Your task to perform on an android device: Do I have any events today? Image 0: 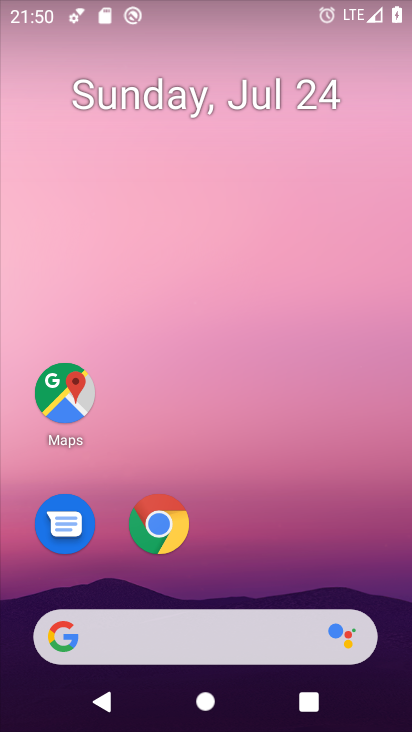
Step 0: drag from (257, 553) to (261, 97)
Your task to perform on an android device: Do I have any events today? Image 1: 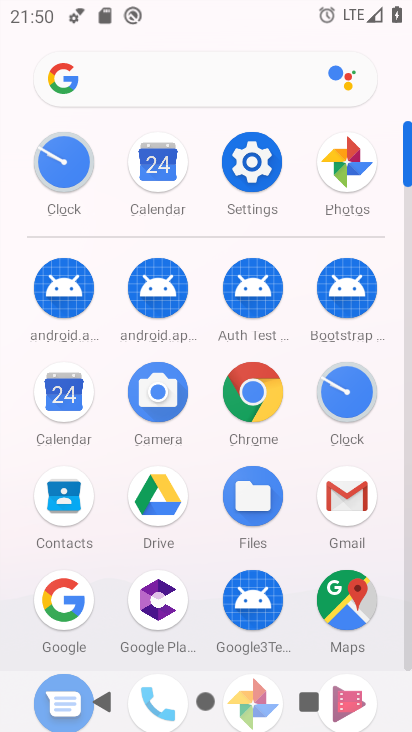
Step 1: click (161, 160)
Your task to perform on an android device: Do I have any events today? Image 2: 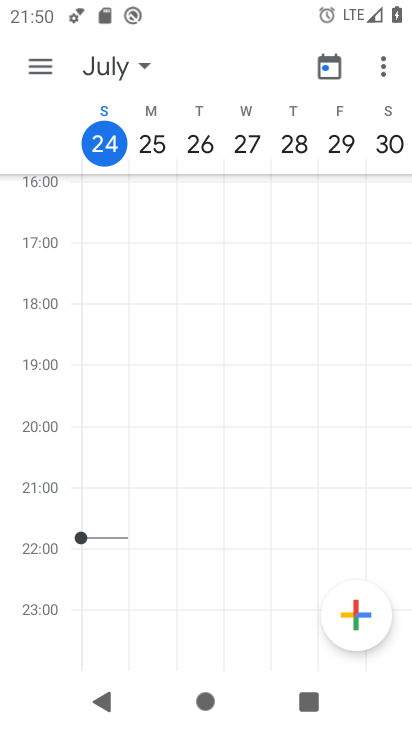
Step 2: task complete